Your task to perform on an android device: change timer sound Image 0: 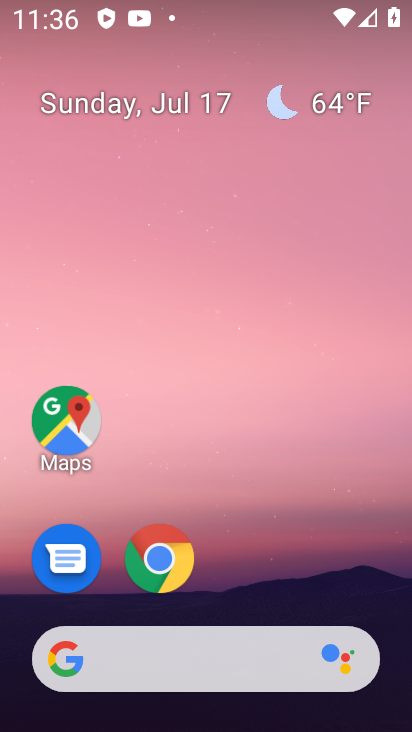
Step 0: drag from (348, 601) to (380, 86)
Your task to perform on an android device: change timer sound Image 1: 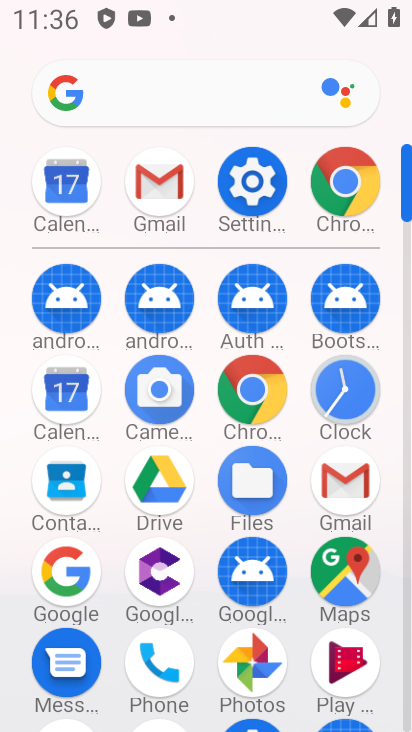
Step 1: click (351, 392)
Your task to perform on an android device: change timer sound Image 2: 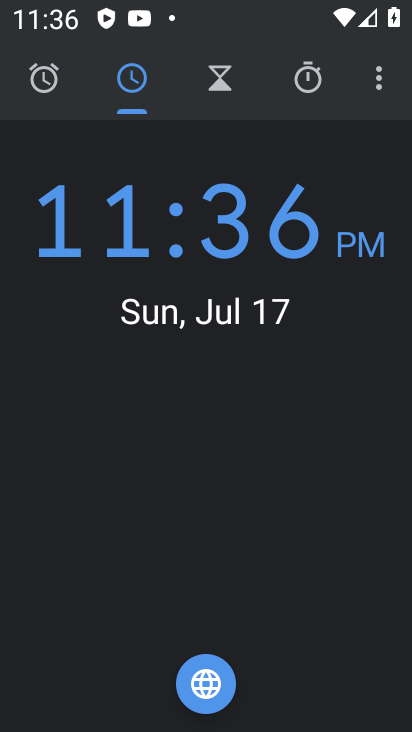
Step 2: click (377, 88)
Your task to perform on an android device: change timer sound Image 3: 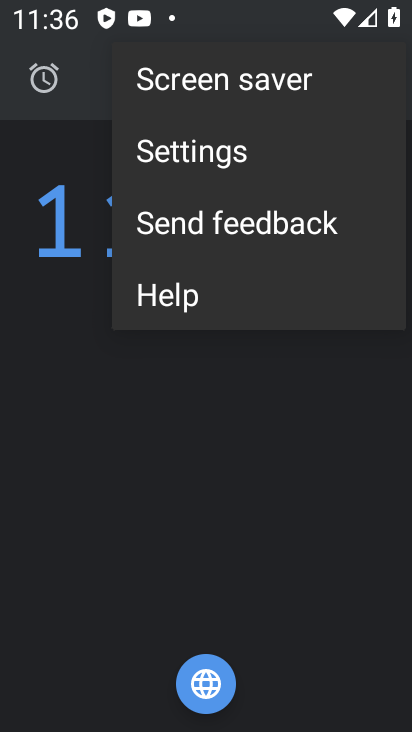
Step 3: click (289, 157)
Your task to perform on an android device: change timer sound Image 4: 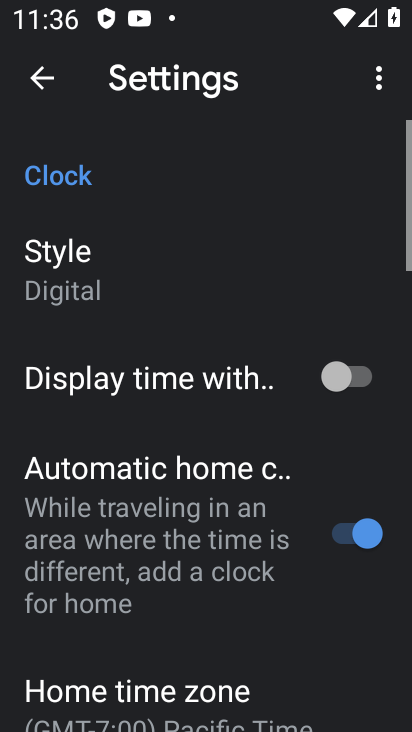
Step 4: drag from (288, 469) to (288, 382)
Your task to perform on an android device: change timer sound Image 5: 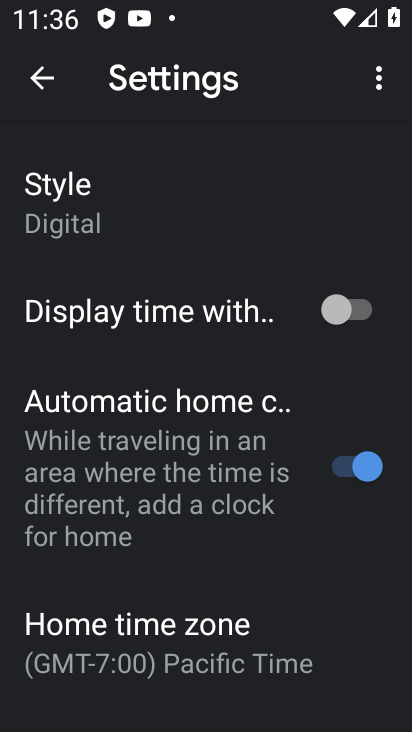
Step 5: drag from (295, 504) to (279, 372)
Your task to perform on an android device: change timer sound Image 6: 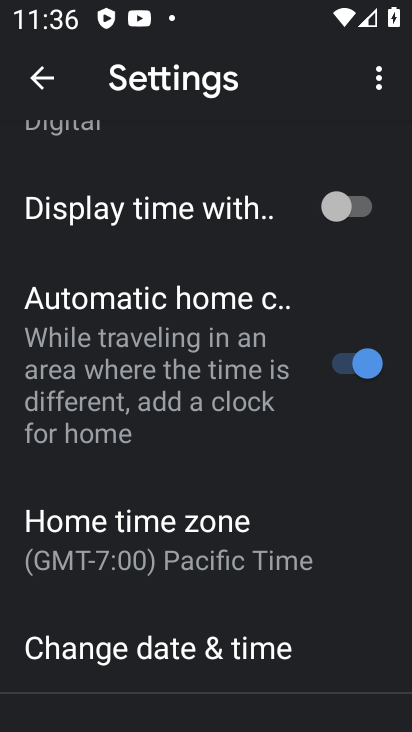
Step 6: drag from (297, 525) to (316, 296)
Your task to perform on an android device: change timer sound Image 7: 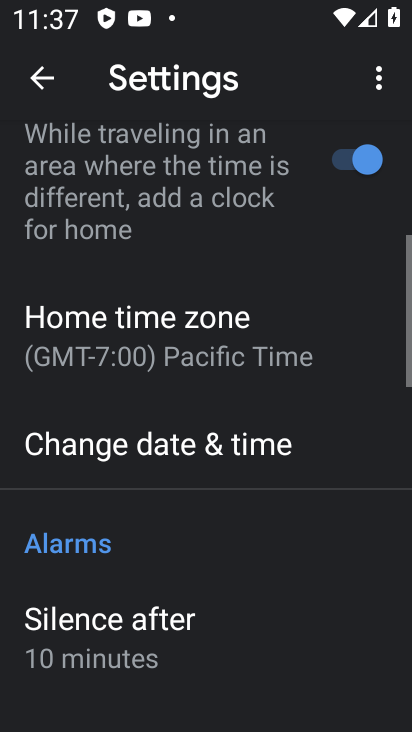
Step 7: drag from (320, 463) to (333, 301)
Your task to perform on an android device: change timer sound Image 8: 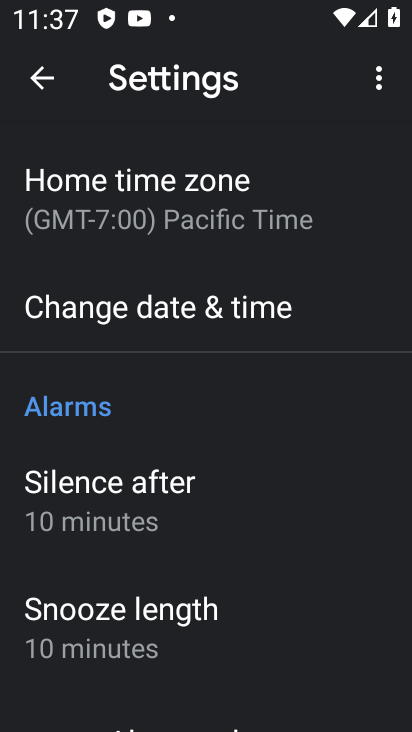
Step 8: drag from (339, 414) to (355, 308)
Your task to perform on an android device: change timer sound Image 9: 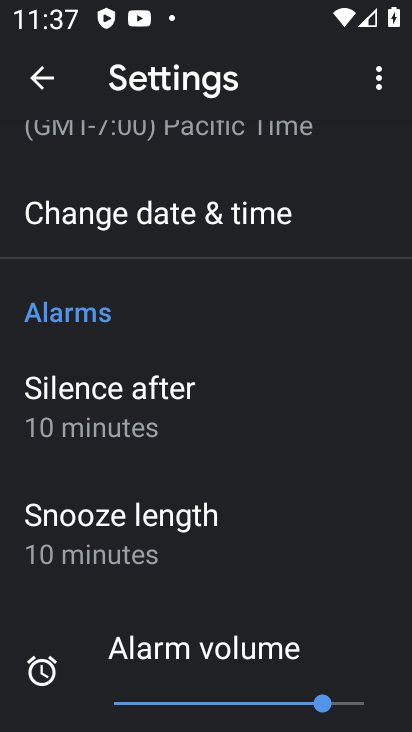
Step 9: drag from (357, 539) to (354, 383)
Your task to perform on an android device: change timer sound Image 10: 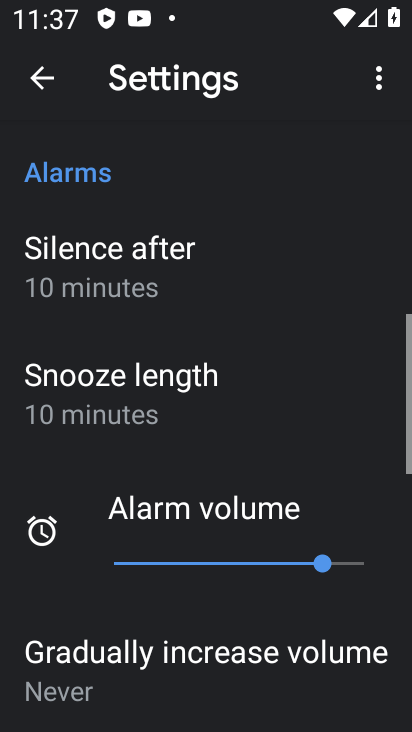
Step 10: drag from (349, 490) to (340, 357)
Your task to perform on an android device: change timer sound Image 11: 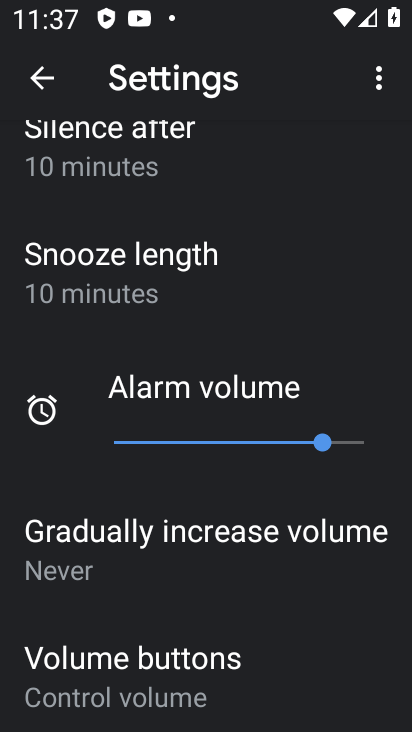
Step 11: drag from (334, 615) to (315, 413)
Your task to perform on an android device: change timer sound Image 12: 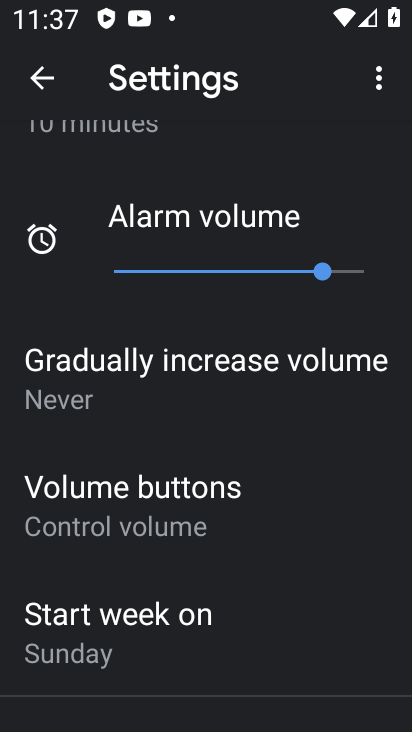
Step 12: drag from (364, 587) to (364, 475)
Your task to perform on an android device: change timer sound Image 13: 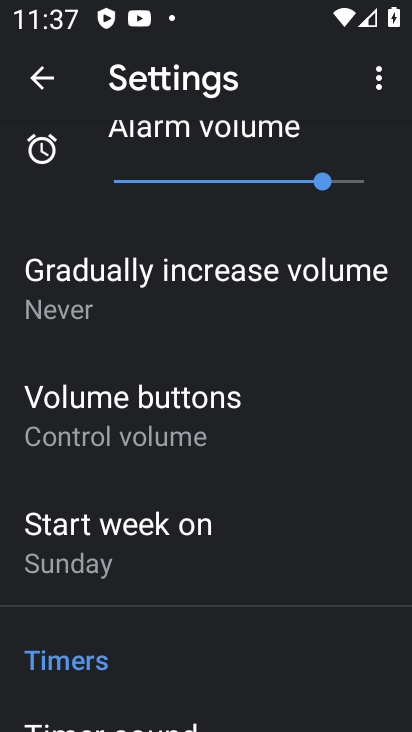
Step 13: drag from (331, 628) to (320, 451)
Your task to perform on an android device: change timer sound Image 14: 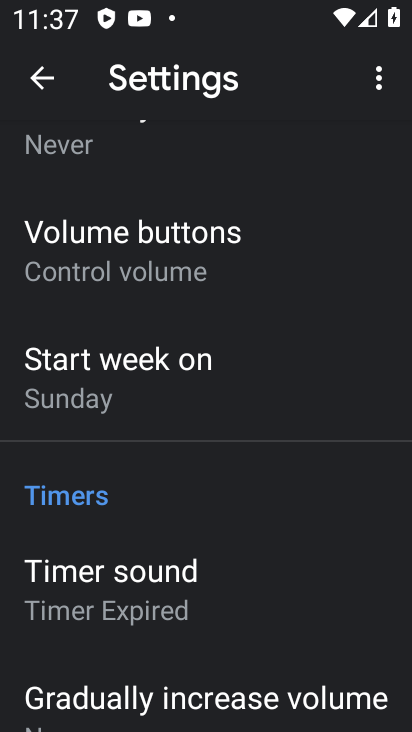
Step 14: click (264, 580)
Your task to perform on an android device: change timer sound Image 15: 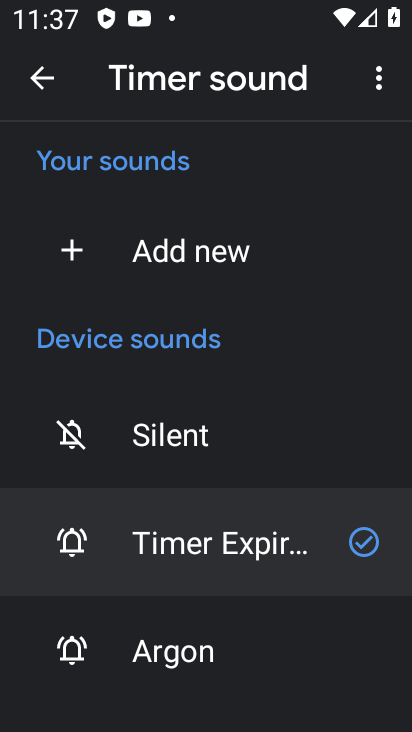
Step 15: click (236, 644)
Your task to perform on an android device: change timer sound Image 16: 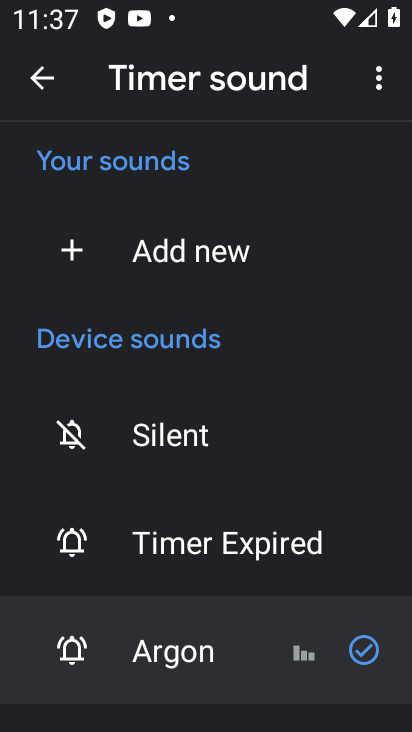
Step 16: task complete